Your task to perform on an android device: find photos in the google photos app Image 0: 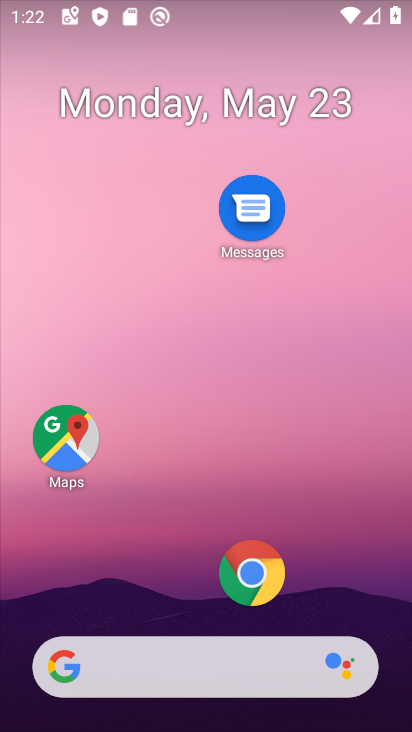
Step 0: drag from (150, 551) to (179, 132)
Your task to perform on an android device: find photos in the google photos app Image 1: 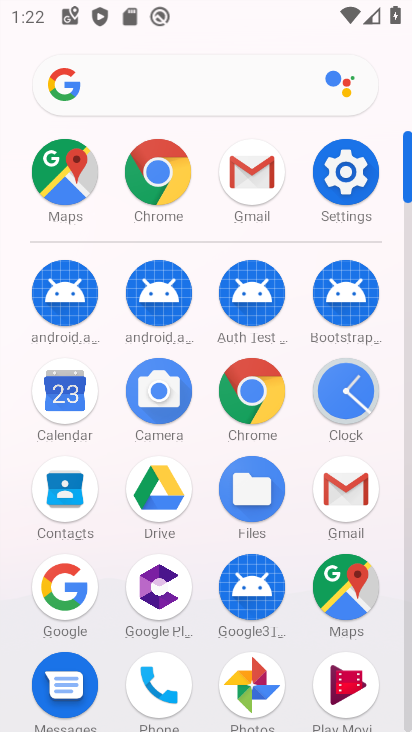
Step 1: click (270, 679)
Your task to perform on an android device: find photos in the google photos app Image 2: 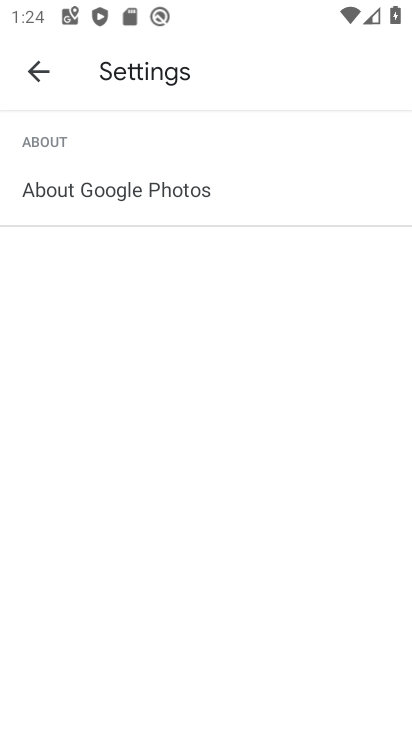
Step 2: press back button
Your task to perform on an android device: find photos in the google photos app Image 3: 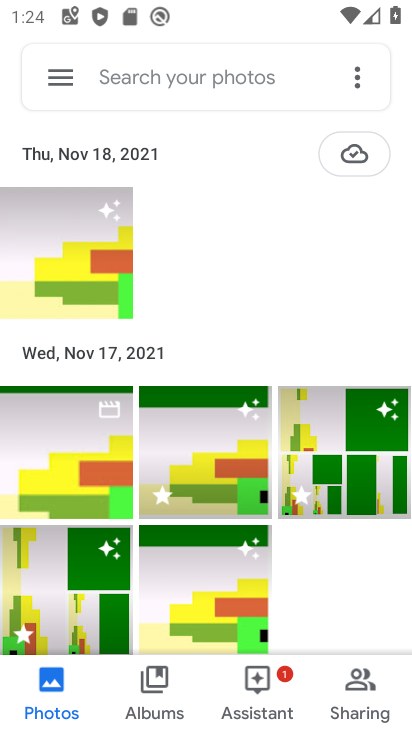
Step 3: click (59, 76)
Your task to perform on an android device: find photos in the google photos app Image 4: 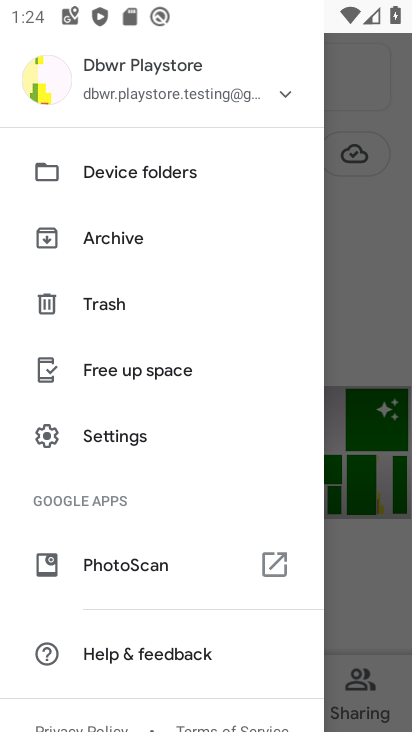
Step 4: drag from (223, 491) to (236, 196)
Your task to perform on an android device: find photos in the google photos app Image 5: 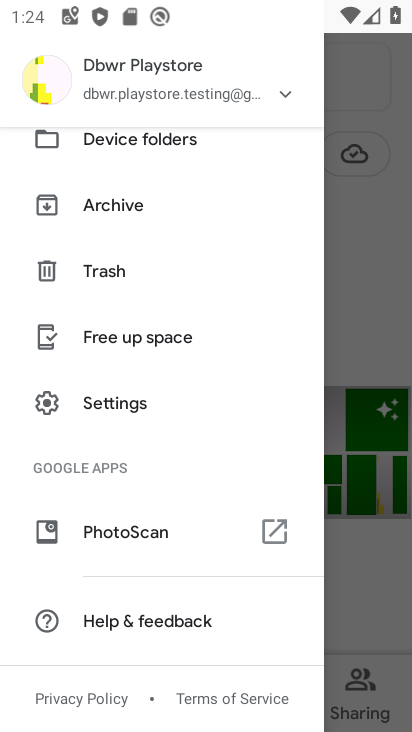
Step 5: click (367, 278)
Your task to perform on an android device: find photos in the google photos app Image 6: 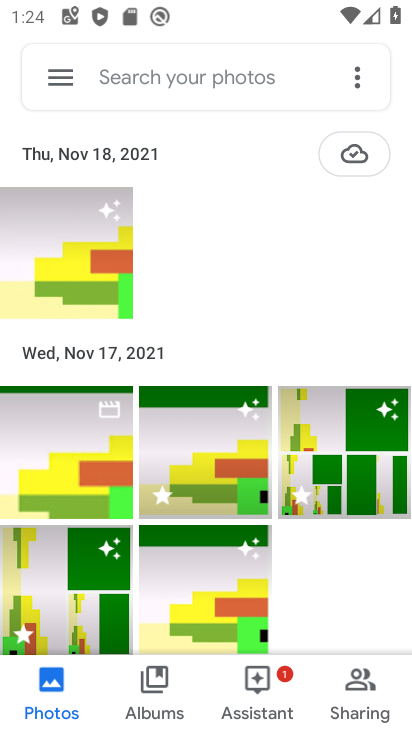
Step 6: task complete